Your task to perform on an android device: empty trash in the gmail app Image 0: 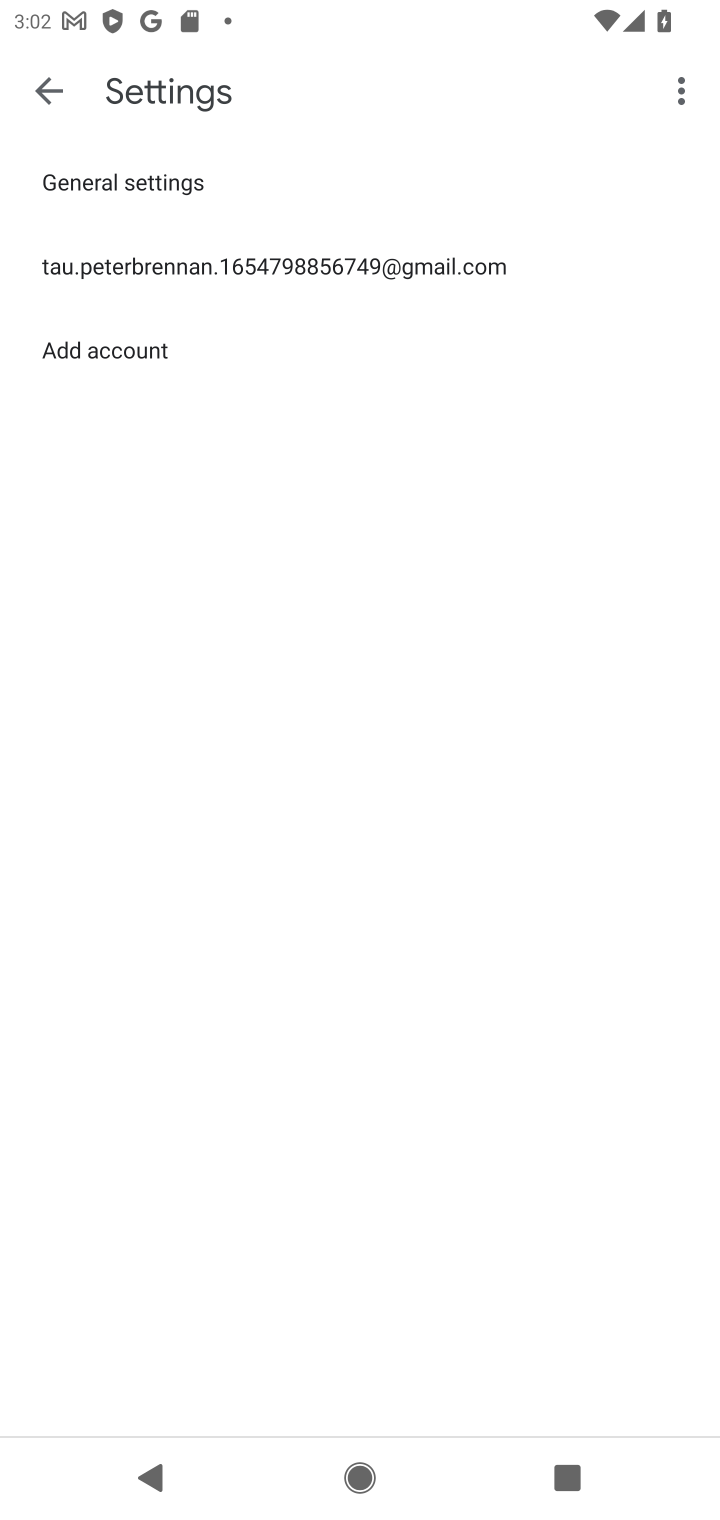
Step 0: press home button
Your task to perform on an android device: empty trash in the gmail app Image 1: 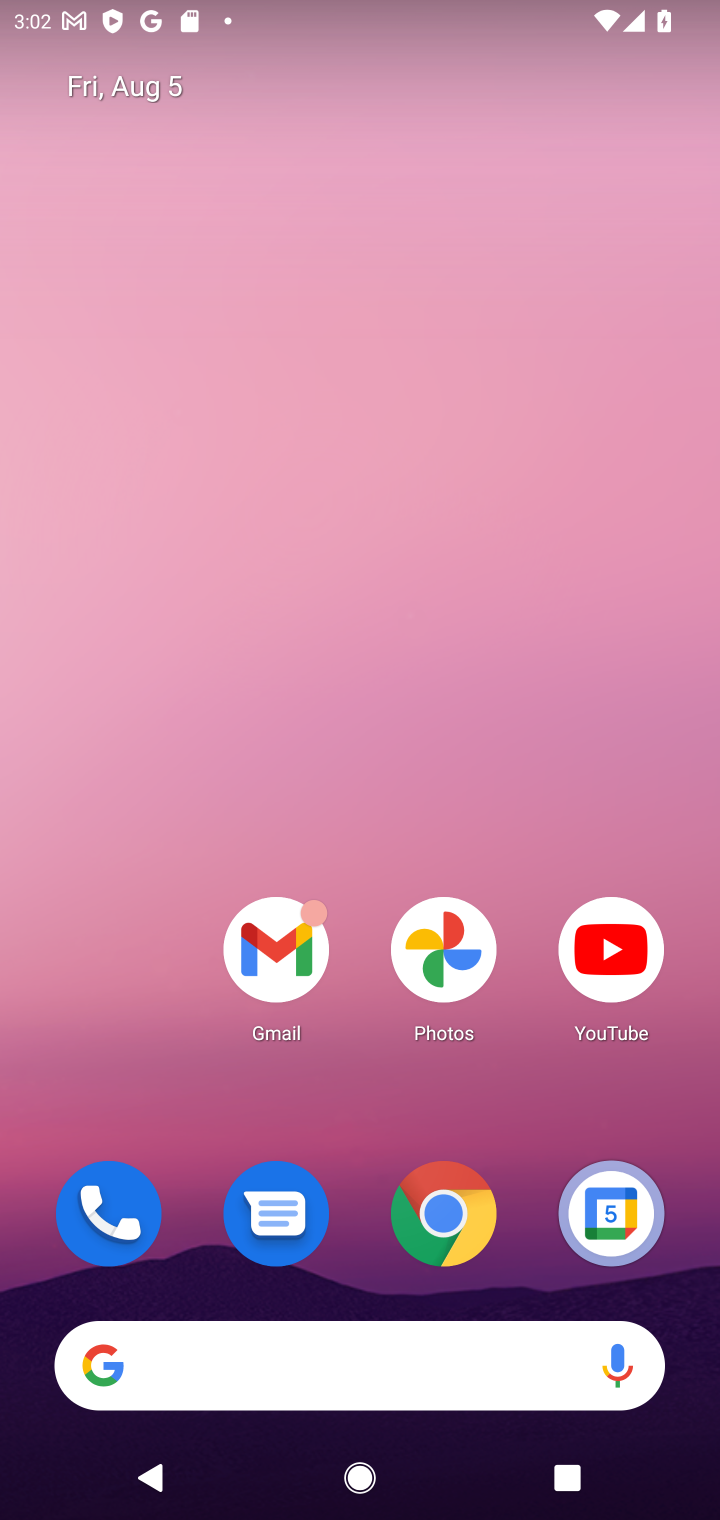
Step 1: click (301, 986)
Your task to perform on an android device: empty trash in the gmail app Image 2: 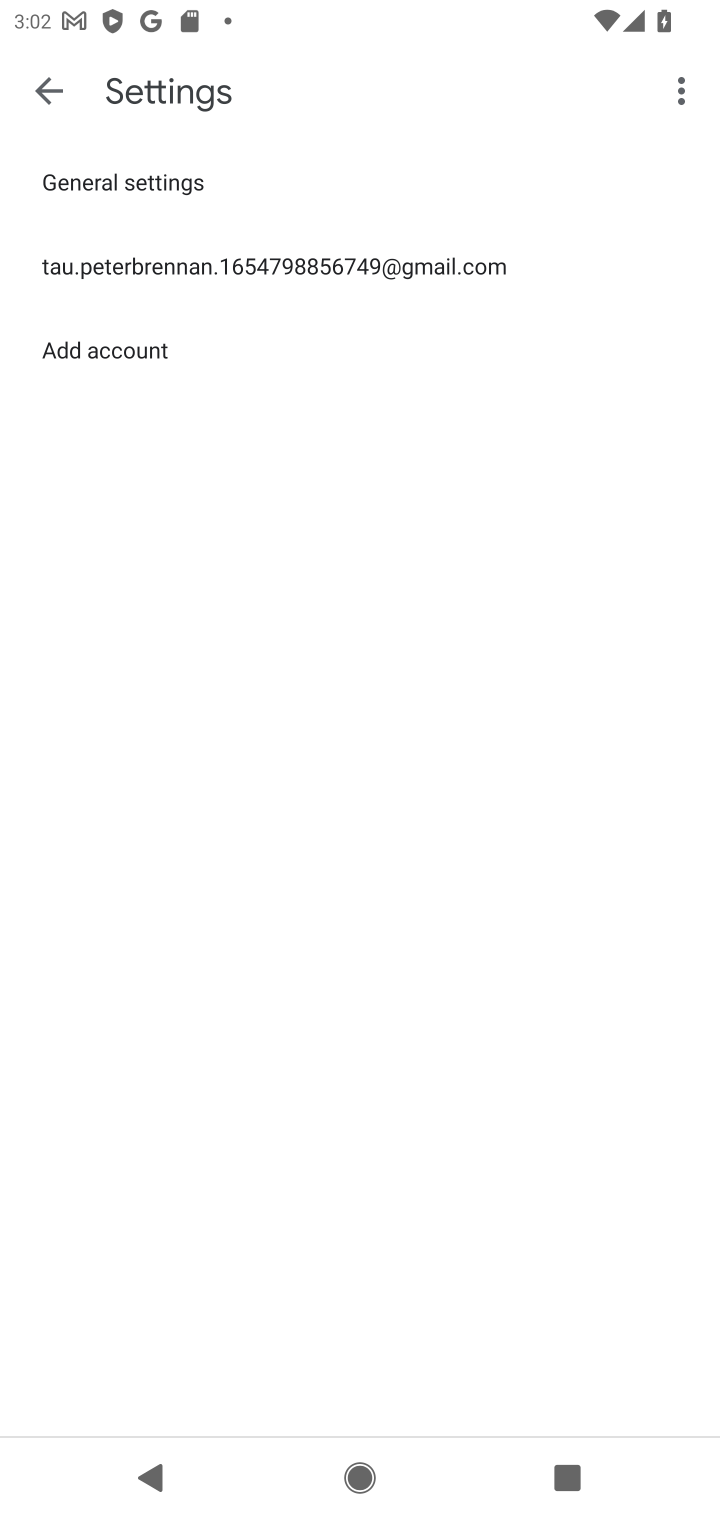
Step 2: click (51, 77)
Your task to perform on an android device: empty trash in the gmail app Image 3: 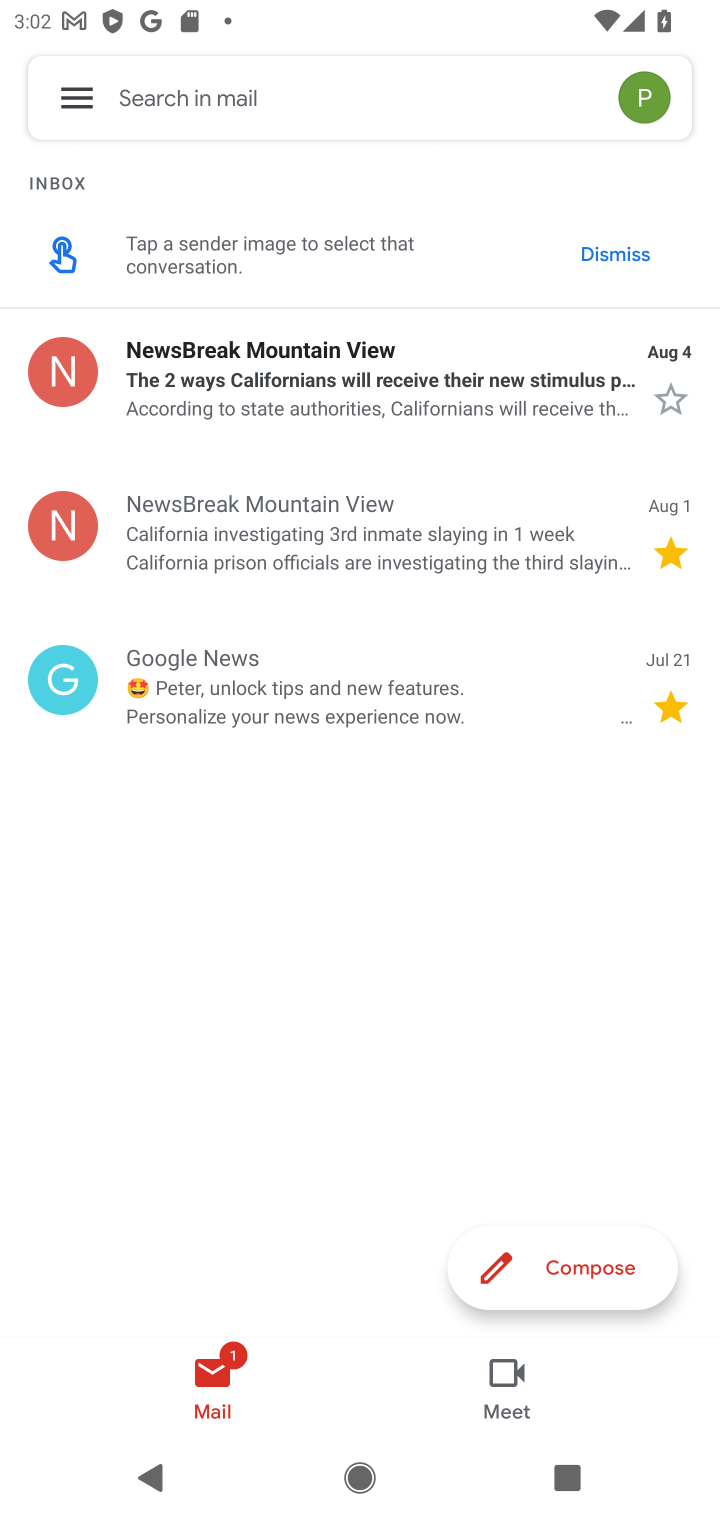
Step 3: click (67, 123)
Your task to perform on an android device: empty trash in the gmail app Image 4: 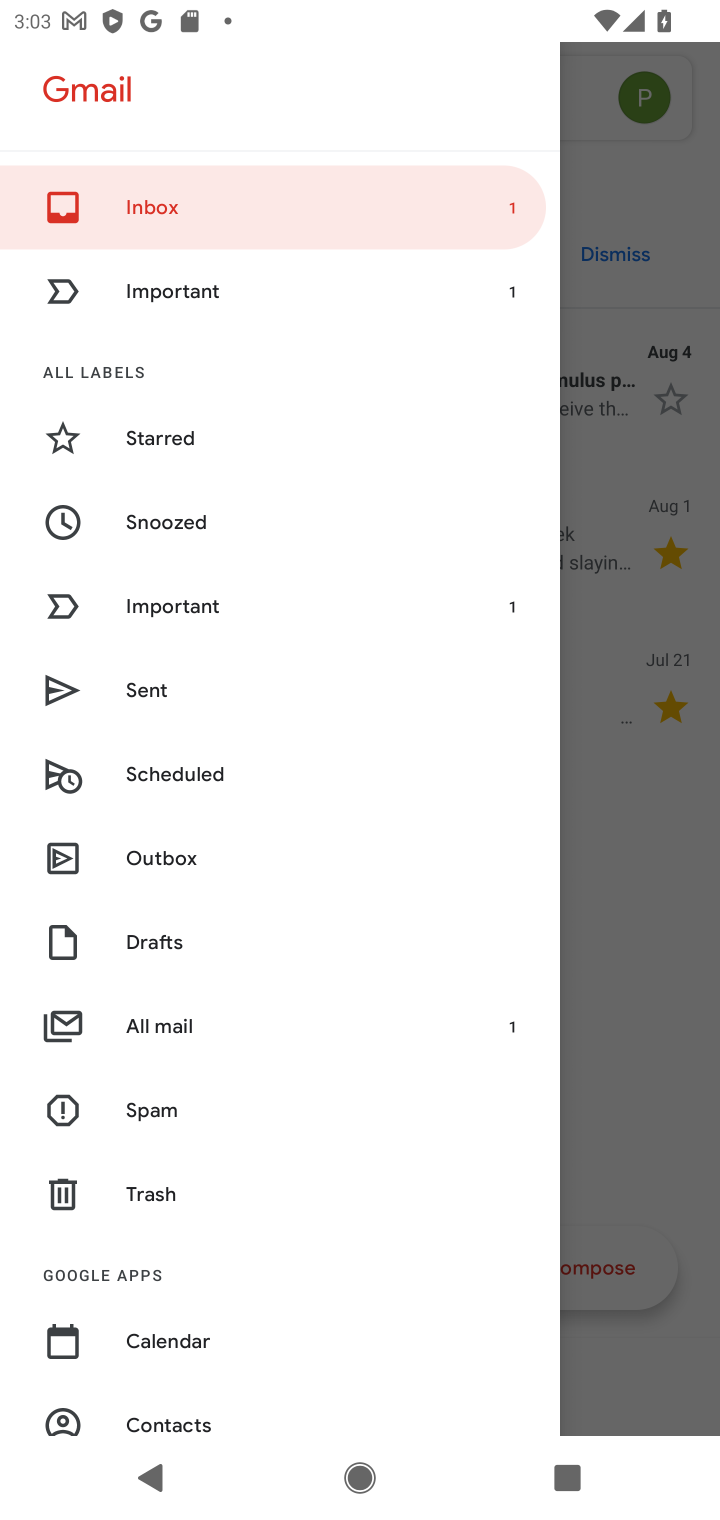
Step 4: click (155, 1185)
Your task to perform on an android device: empty trash in the gmail app Image 5: 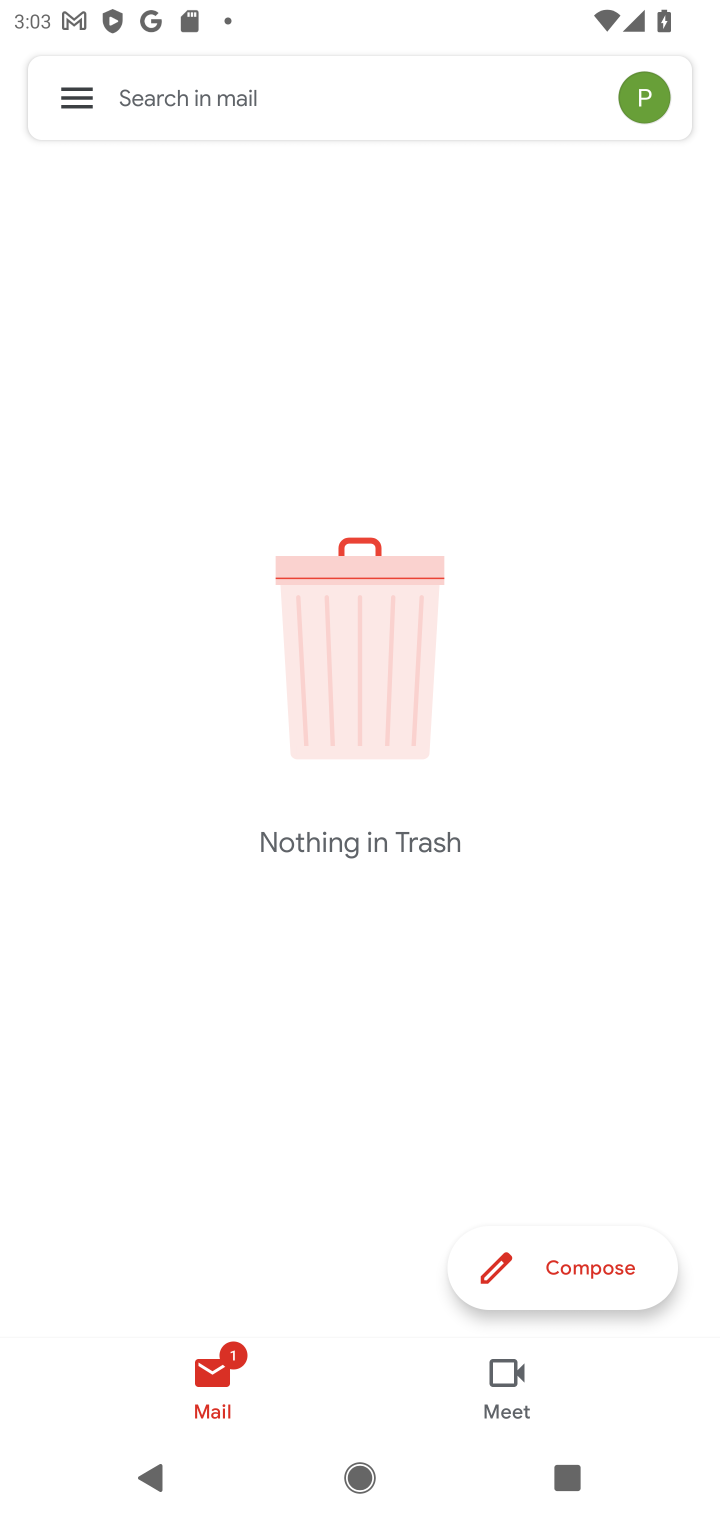
Step 5: task complete